Your task to perform on an android device: Open the phone app and click the voicemail tab. Image 0: 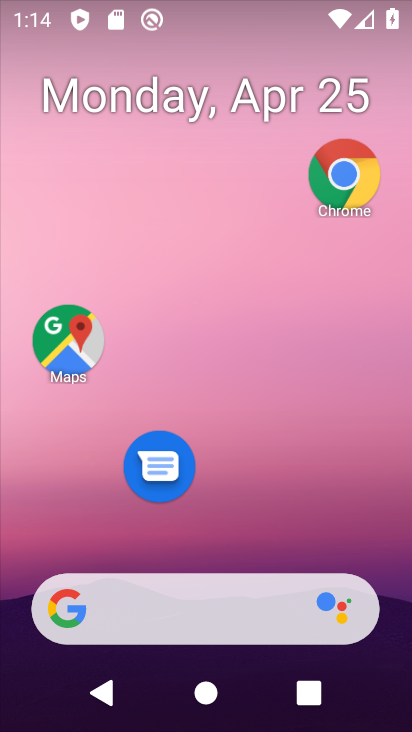
Step 0: drag from (297, 541) to (232, 53)
Your task to perform on an android device: Open the phone app and click the voicemail tab. Image 1: 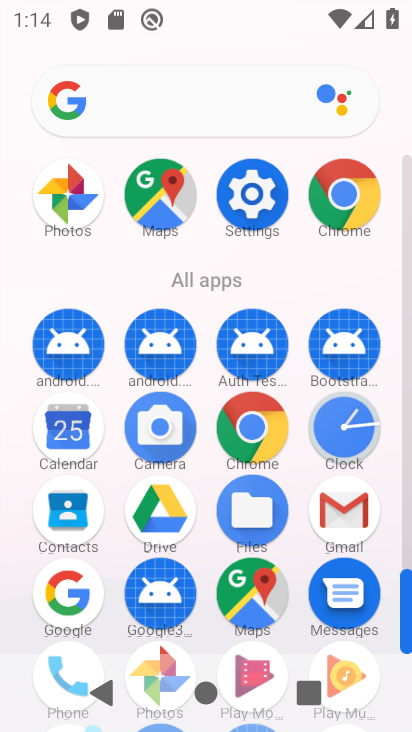
Step 1: drag from (277, 463) to (271, 304)
Your task to perform on an android device: Open the phone app and click the voicemail tab. Image 2: 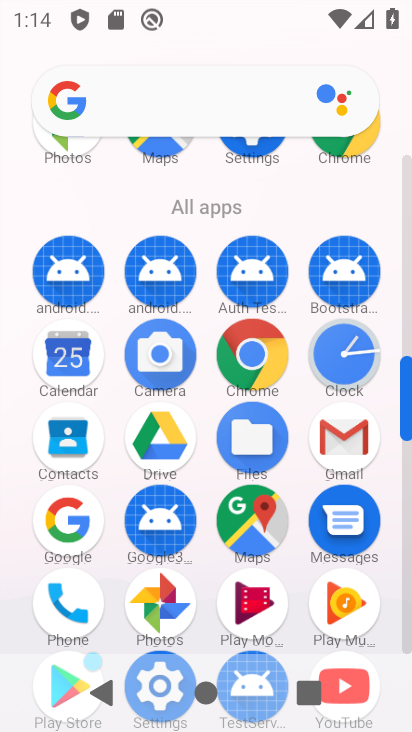
Step 2: click (51, 597)
Your task to perform on an android device: Open the phone app and click the voicemail tab. Image 3: 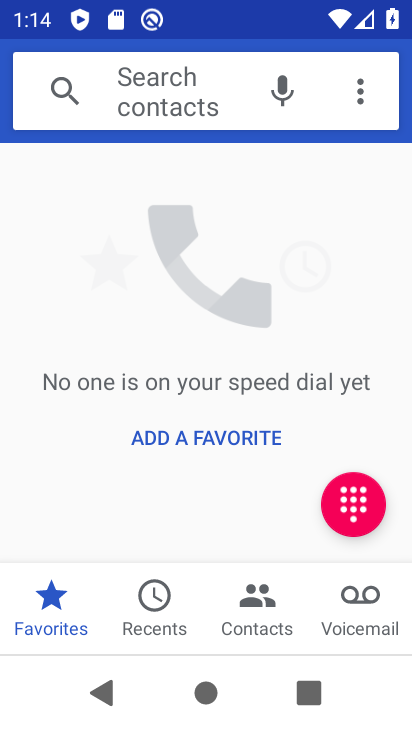
Step 3: click (373, 588)
Your task to perform on an android device: Open the phone app and click the voicemail tab. Image 4: 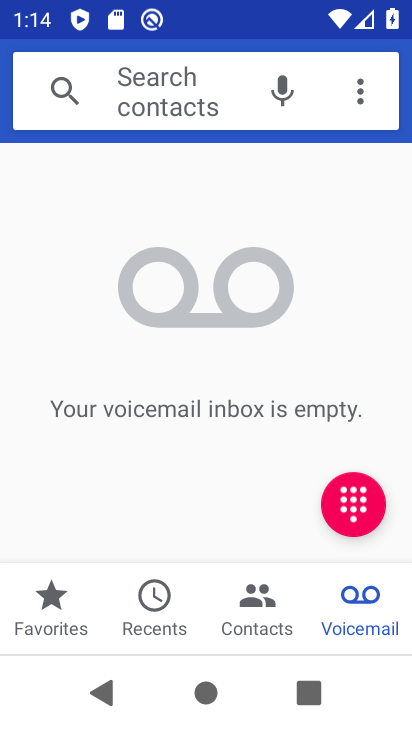
Step 4: task complete